Your task to perform on an android device: Open privacy settings Image 0: 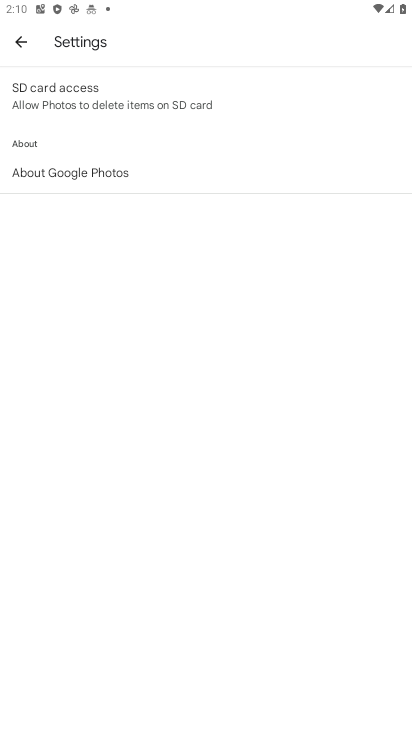
Step 0: press home button
Your task to perform on an android device: Open privacy settings Image 1: 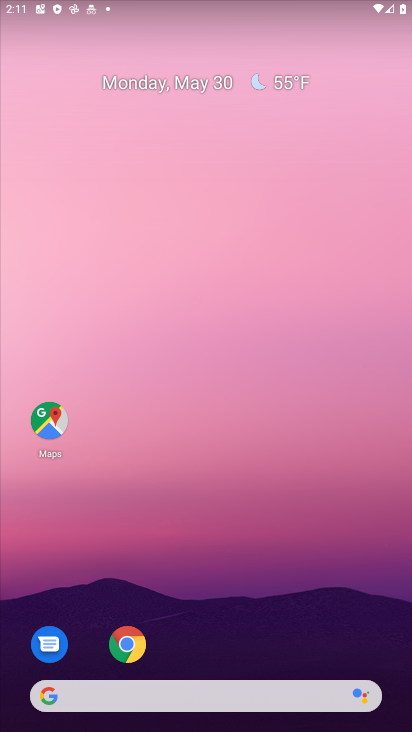
Step 1: task complete